Your task to perform on an android device: Open Google Chrome Image 0: 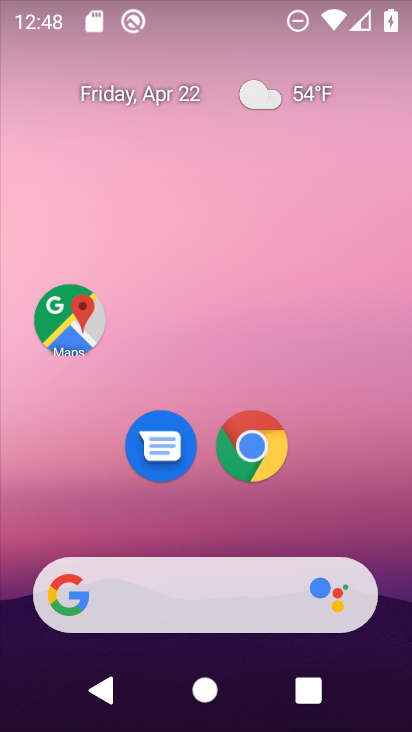
Step 0: click (268, 461)
Your task to perform on an android device: Open Google Chrome Image 1: 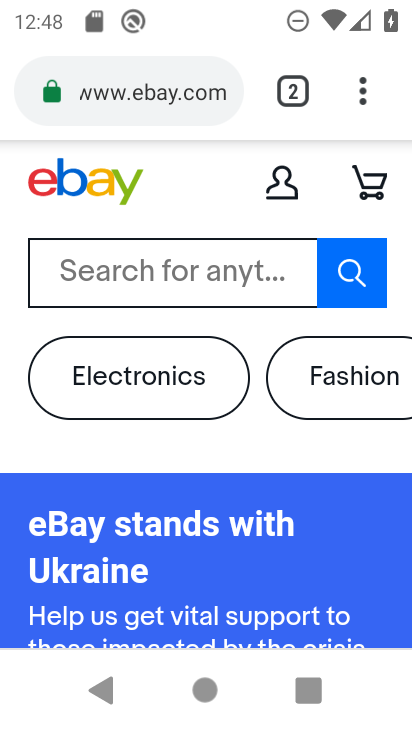
Step 1: task complete